Your task to perform on an android device: Open maps Image 0: 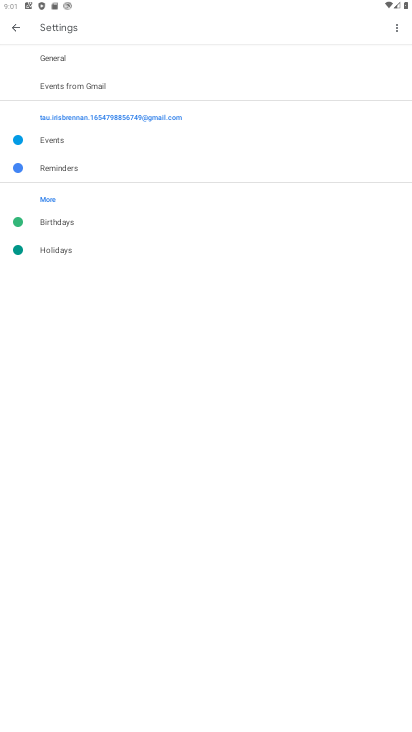
Step 0: click (249, 189)
Your task to perform on an android device: Open maps Image 1: 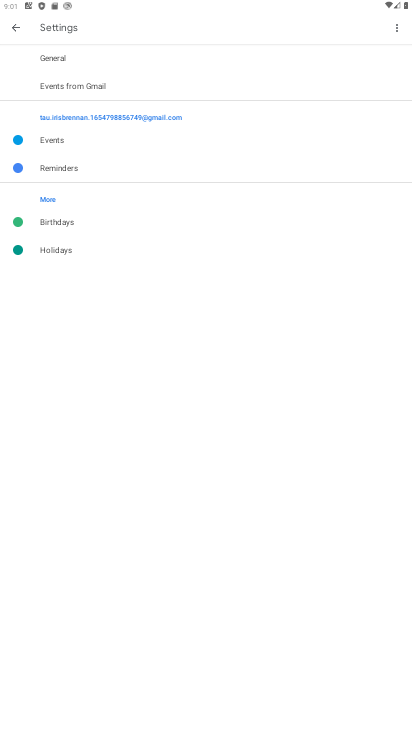
Step 1: press home button
Your task to perform on an android device: Open maps Image 2: 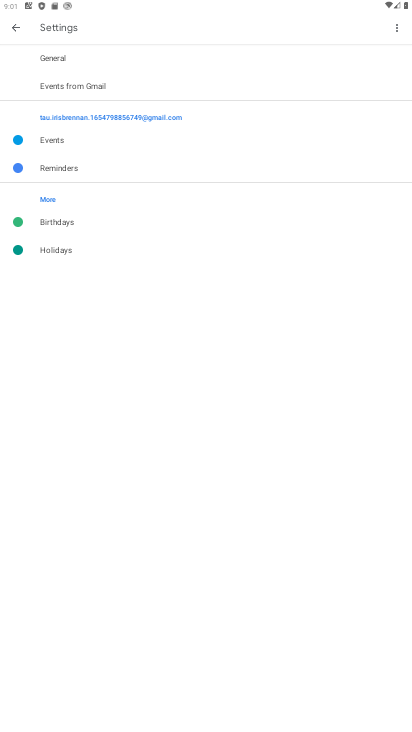
Step 2: click (223, 366)
Your task to perform on an android device: Open maps Image 3: 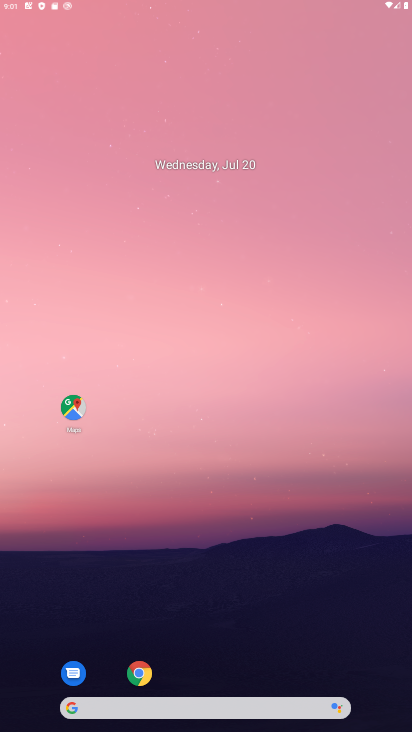
Step 3: click (189, 629)
Your task to perform on an android device: Open maps Image 4: 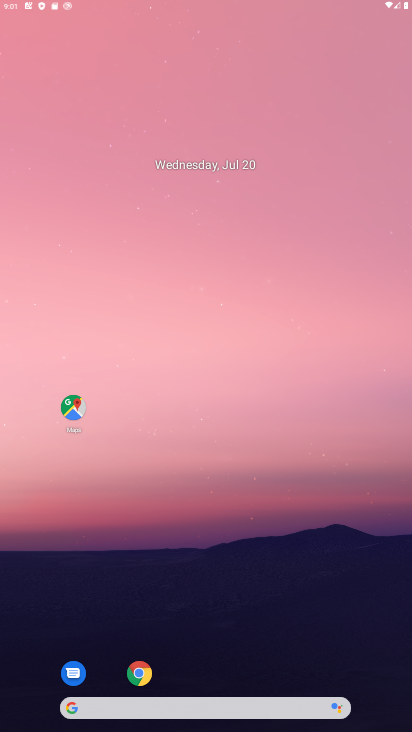
Step 4: press home button
Your task to perform on an android device: Open maps Image 5: 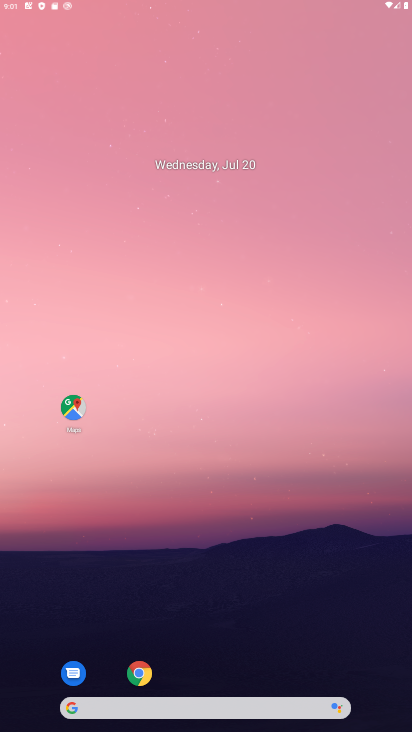
Step 5: click (330, 92)
Your task to perform on an android device: Open maps Image 6: 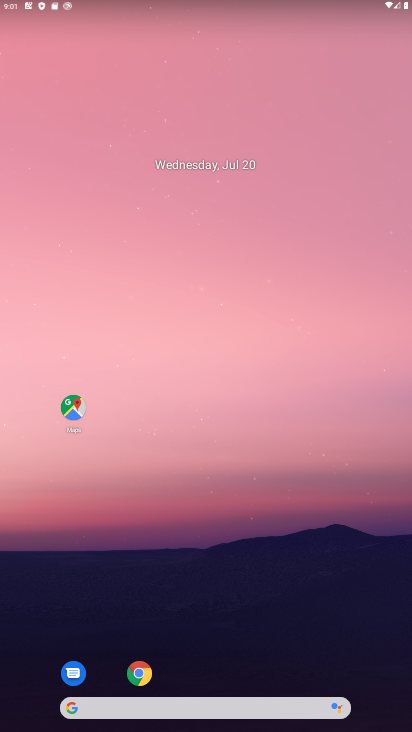
Step 6: drag from (147, 696) to (216, 30)
Your task to perform on an android device: Open maps Image 7: 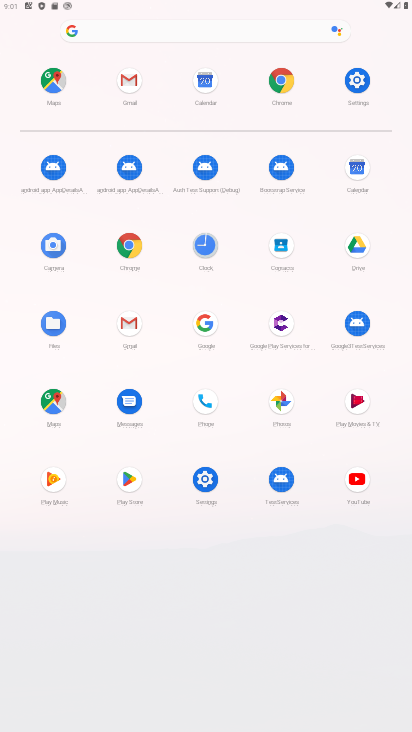
Step 7: click (51, 399)
Your task to perform on an android device: Open maps Image 8: 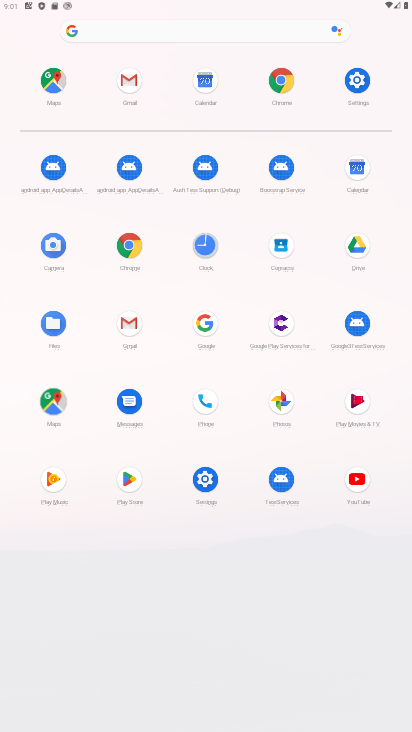
Step 8: click (51, 399)
Your task to perform on an android device: Open maps Image 9: 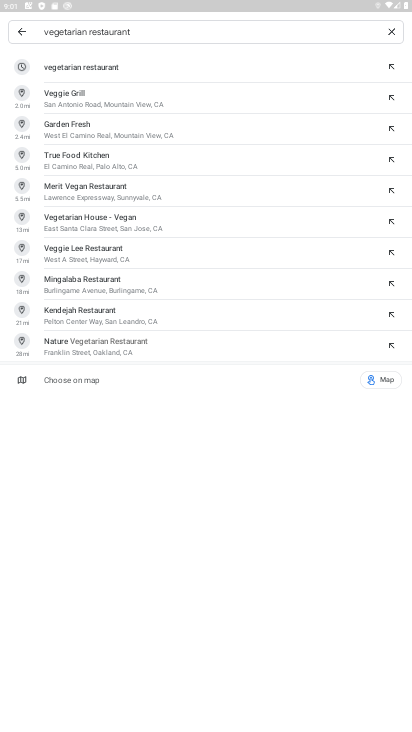
Step 9: click (395, 30)
Your task to perform on an android device: Open maps Image 10: 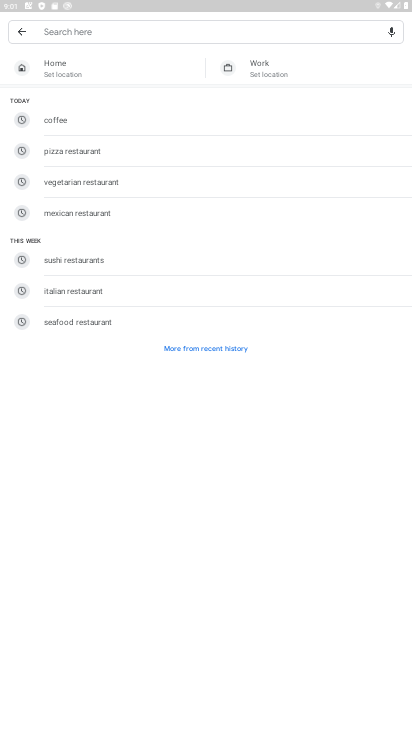
Step 10: click (17, 34)
Your task to perform on an android device: Open maps Image 11: 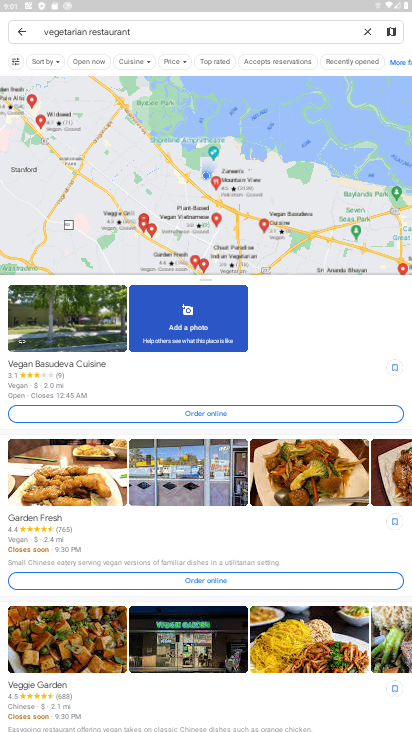
Step 11: drag from (191, 500) to (202, 262)
Your task to perform on an android device: Open maps Image 12: 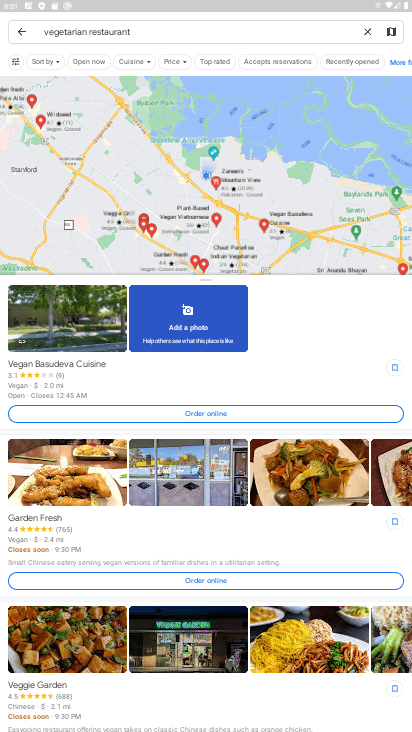
Step 12: click (13, 32)
Your task to perform on an android device: Open maps Image 13: 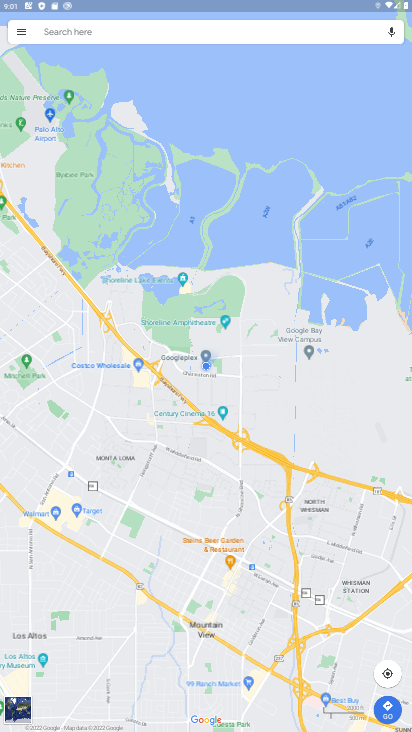
Step 13: task complete